Your task to perform on an android device: When is my next appointment? Image 0: 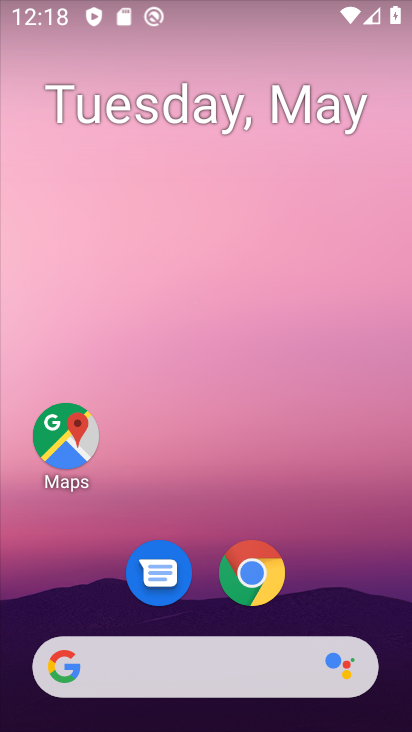
Step 0: drag from (337, 539) to (275, 66)
Your task to perform on an android device: When is my next appointment? Image 1: 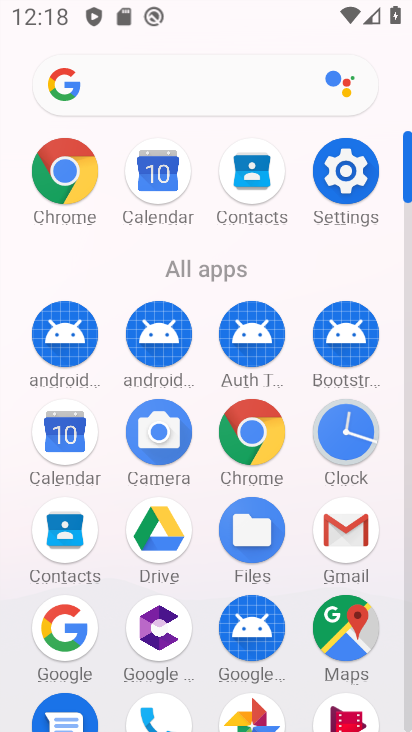
Step 1: click (55, 447)
Your task to perform on an android device: When is my next appointment? Image 2: 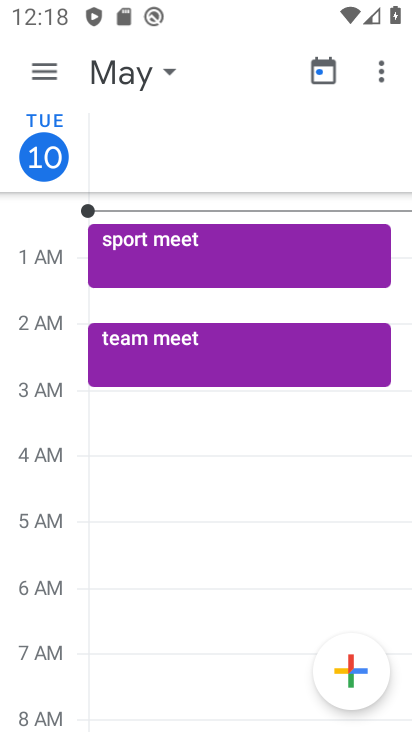
Step 2: click (147, 78)
Your task to perform on an android device: When is my next appointment? Image 3: 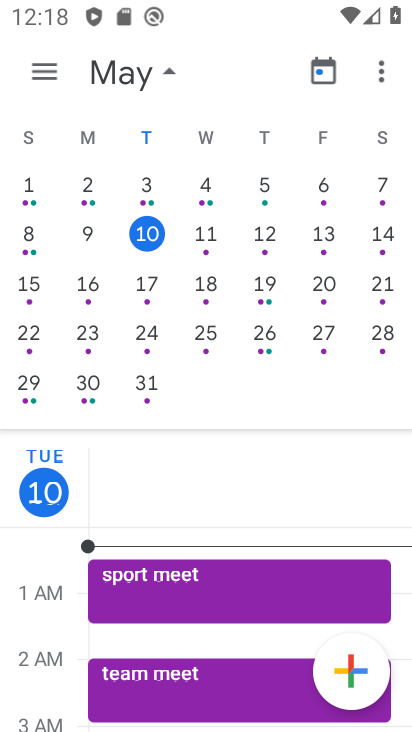
Step 3: task complete